Your task to perform on an android device: Go to ESPN.com Image 0: 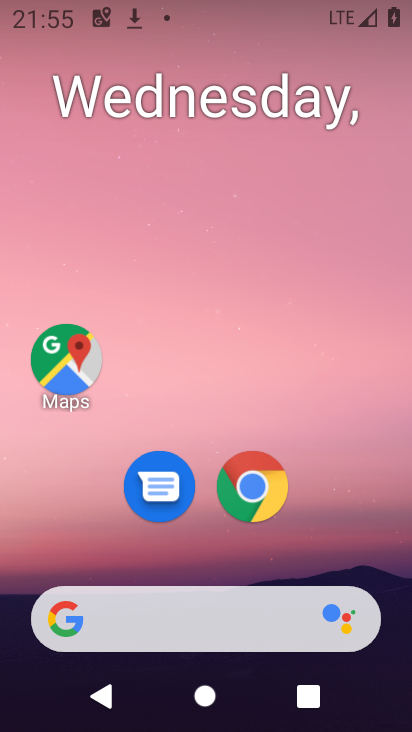
Step 0: click (233, 488)
Your task to perform on an android device: Go to ESPN.com Image 1: 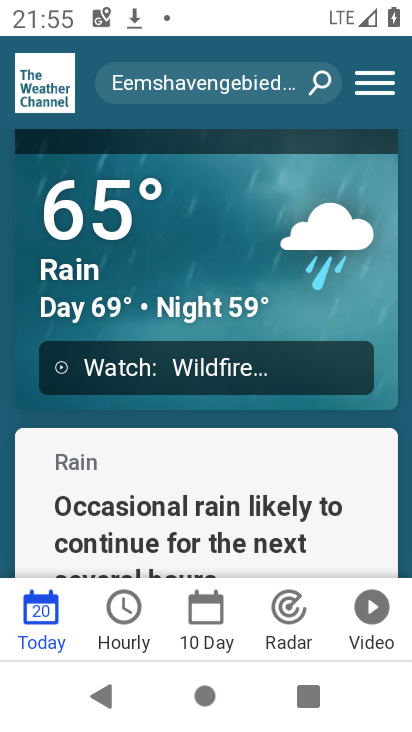
Step 1: drag from (254, 368) to (217, 639)
Your task to perform on an android device: Go to ESPN.com Image 2: 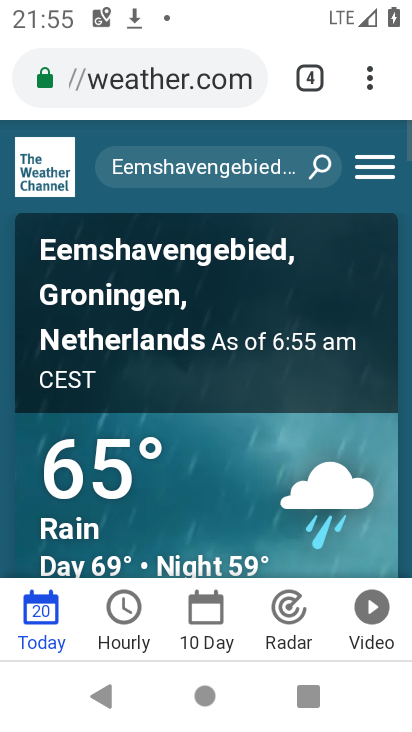
Step 2: click (308, 78)
Your task to perform on an android device: Go to ESPN.com Image 3: 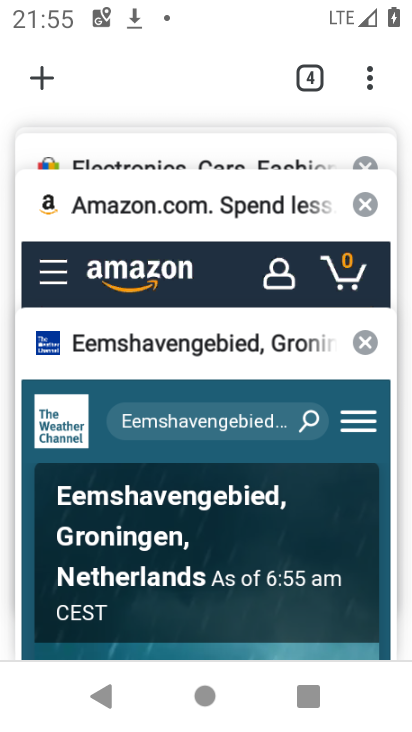
Step 3: click (38, 74)
Your task to perform on an android device: Go to ESPN.com Image 4: 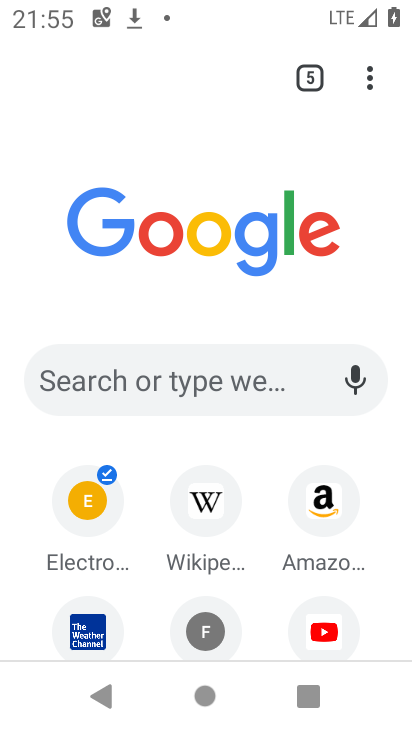
Step 4: drag from (263, 614) to (266, 556)
Your task to perform on an android device: Go to ESPN.com Image 5: 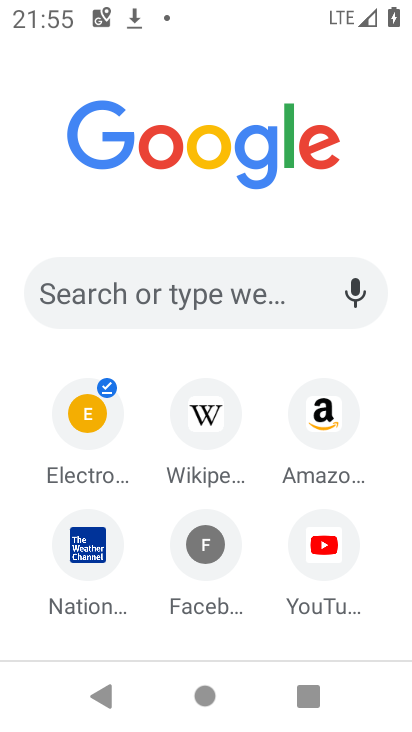
Step 5: click (128, 290)
Your task to perform on an android device: Go to ESPN.com Image 6: 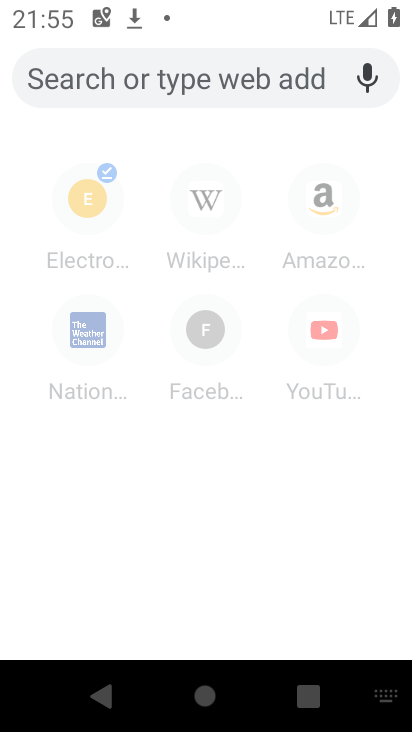
Step 6: type "espn.com"
Your task to perform on an android device: Go to ESPN.com Image 7: 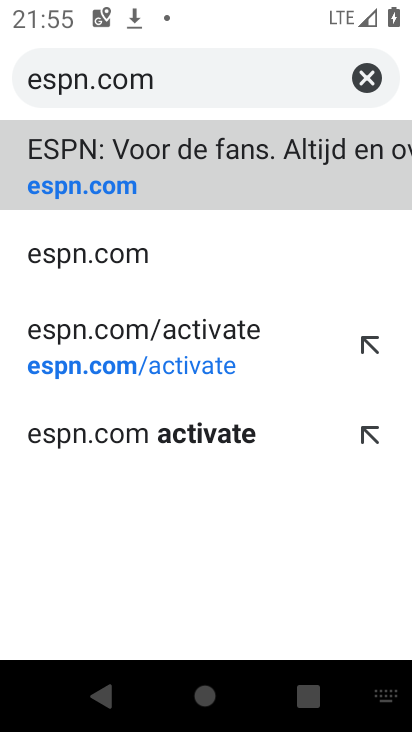
Step 7: click (88, 184)
Your task to perform on an android device: Go to ESPN.com Image 8: 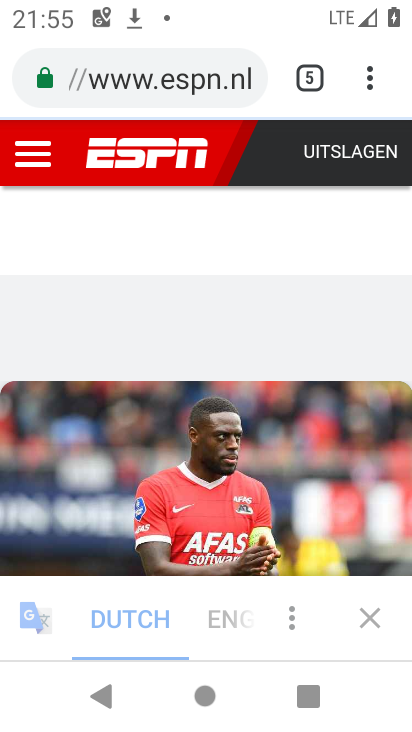
Step 8: task complete